Your task to perform on an android device: uninstall "Microsoft Excel" Image 0: 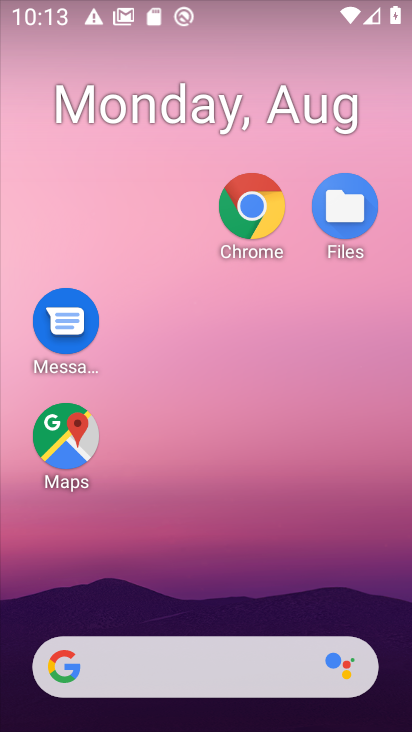
Step 0: drag from (236, 615) to (106, 223)
Your task to perform on an android device: uninstall "Microsoft Excel" Image 1: 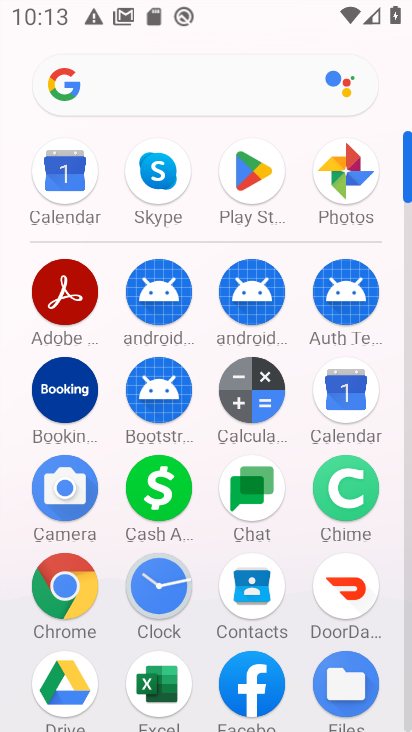
Step 1: click (269, 182)
Your task to perform on an android device: uninstall "Microsoft Excel" Image 2: 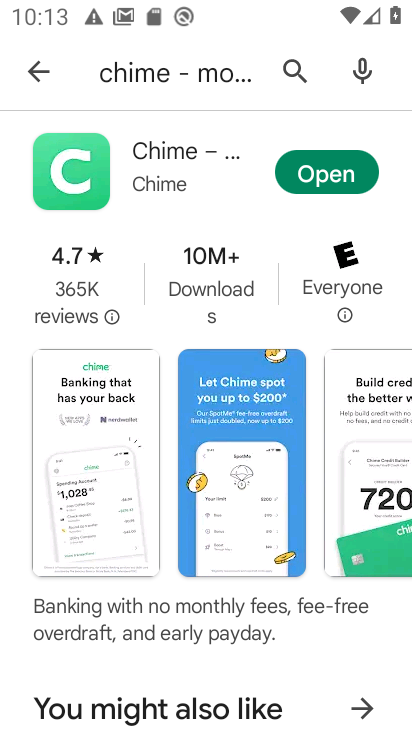
Step 2: click (297, 70)
Your task to perform on an android device: uninstall "Microsoft Excel" Image 3: 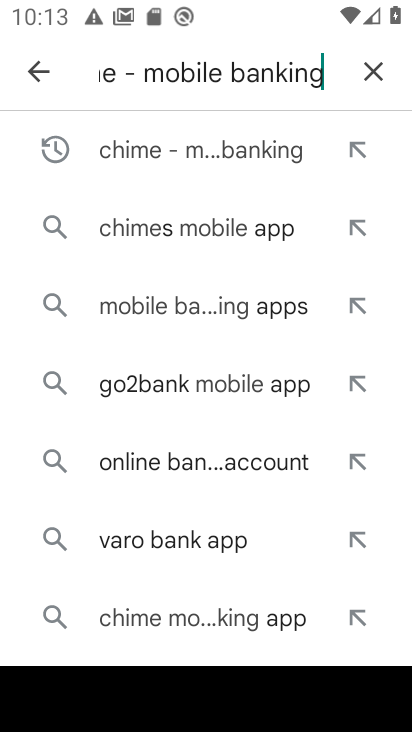
Step 3: click (373, 67)
Your task to perform on an android device: uninstall "Microsoft Excel" Image 4: 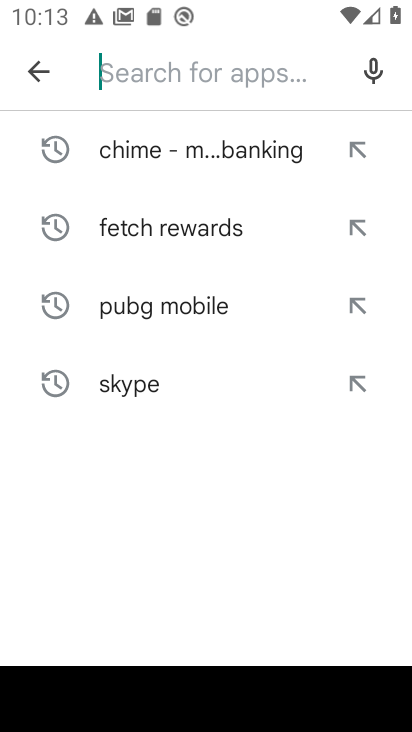
Step 4: type "microsoft excel"
Your task to perform on an android device: uninstall "Microsoft Excel" Image 5: 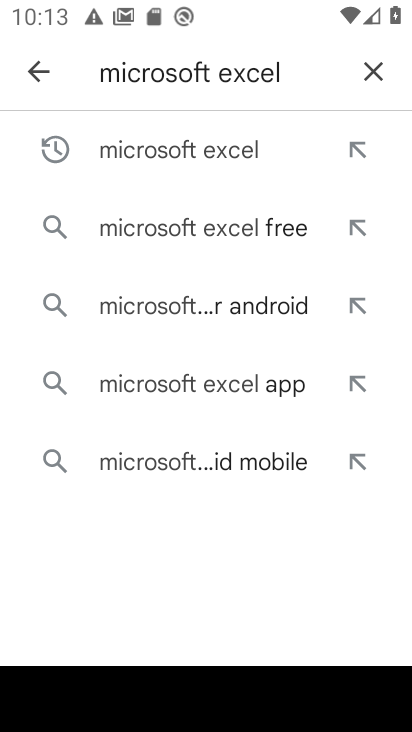
Step 5: click (163, 140)
Your task to perform on an android device: uninstall "Microsoft Excel" Image 6: 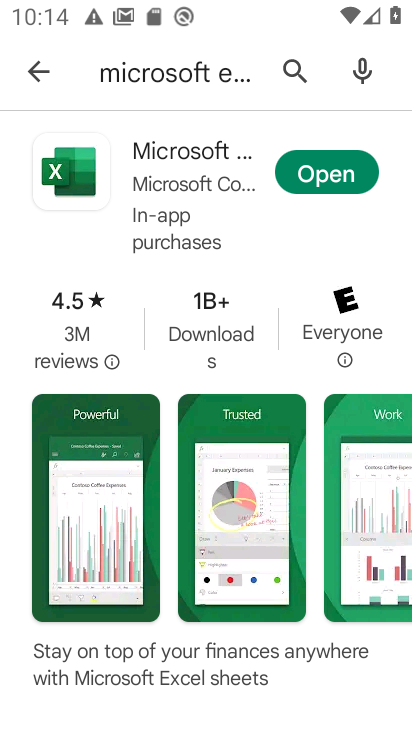
Step 6: click (59, 222)
Your task to perform on an android device: uninstall "Microsoft Excel" Image 7: 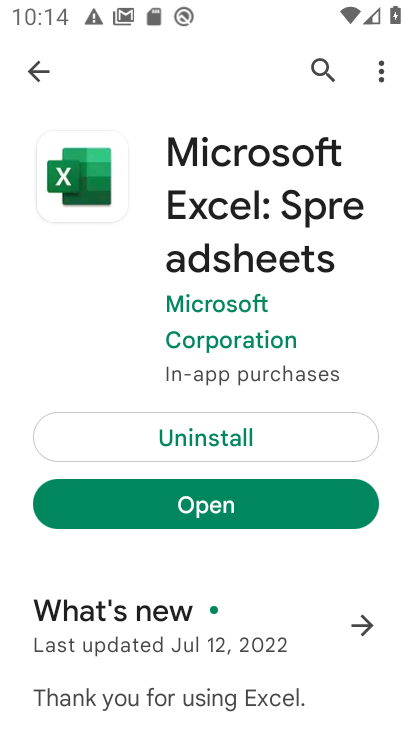
Step 7: click (224, 434)
Your task to perform on an android device: uninstall "Microsoft Excel" Image 8: 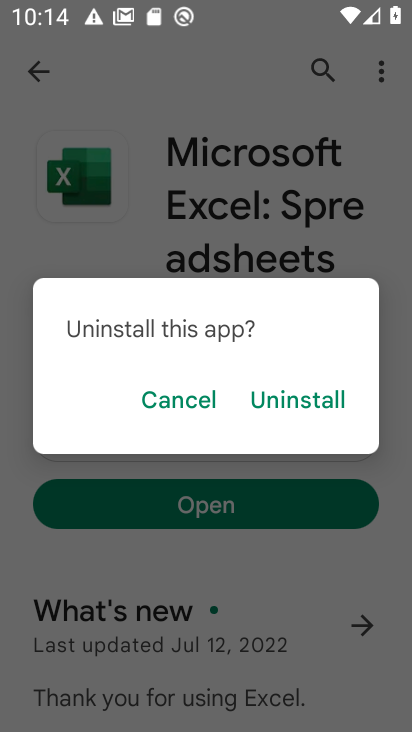
Step 8: click (283, 410)
Your task to perform on an android device: uninstall "Microsoft Excel" Image 9: 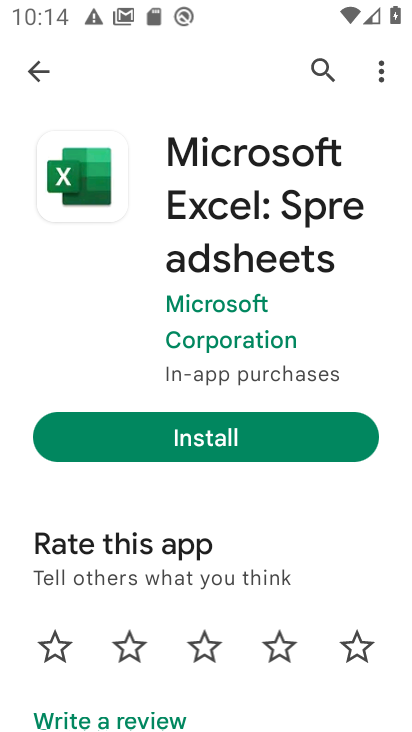
Step 9: task complete